Your task to perform on an android device: search for starred emails in the gmail app Image 0: 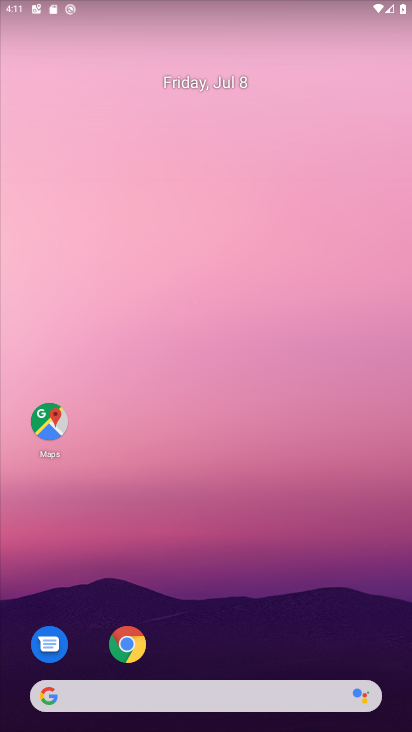
Step 0: drag from (386, 643) to (298, 59)
Your task to perform on an android device: search for starred emails in the gmail app Image 1: 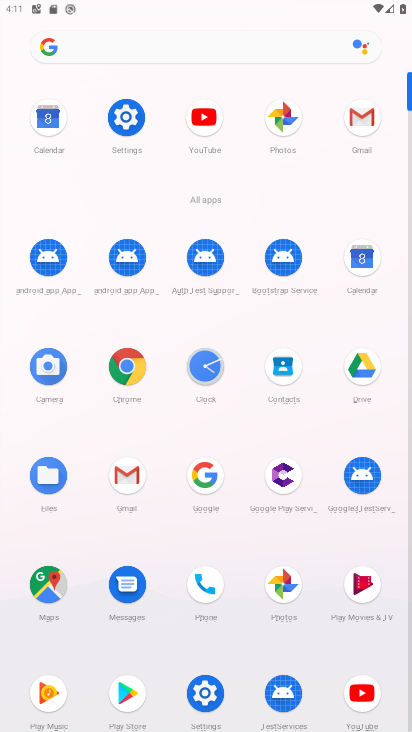
Step 1: click (127, 476)
Your task to perform on an android device: search for starred emails in the gmail app Image 2: 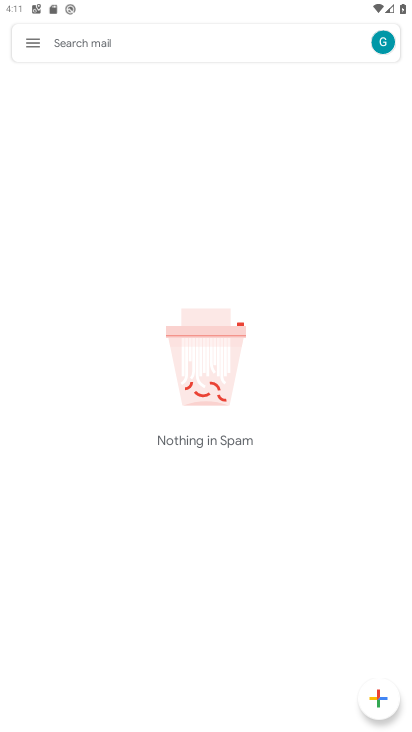
Step 2: click (29, 38)
Your task to perform on an android device: search for starred emails in the gmail app Image 3: 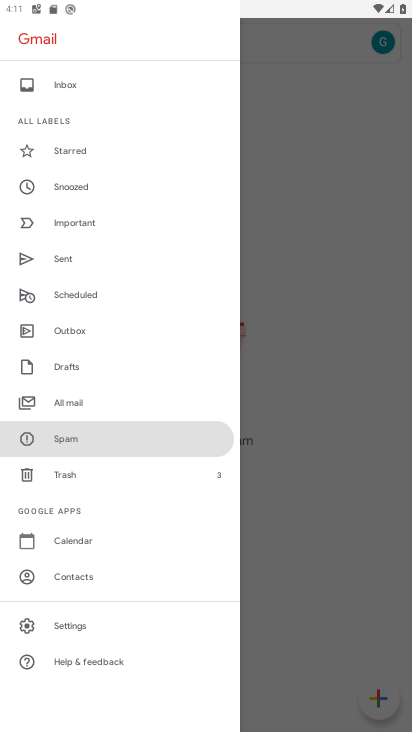
Step 3: click (68, 148)
Your task to perform on an android device: search for starred emails in the gmail app Image 4: 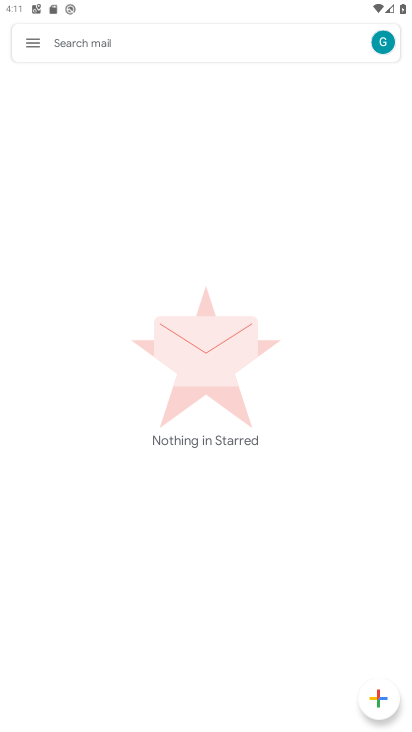
Step 4: task complete